Your task to perform on an android device: open a new tab in the chrome app Image 0: 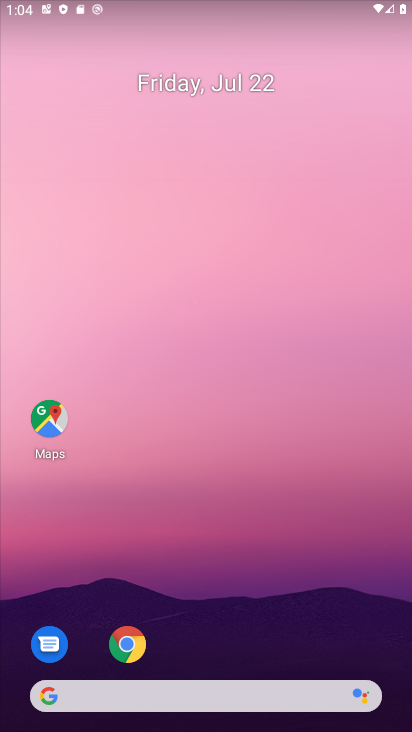
Step 0: click (129, 637)
Your task to perform on an android device: open a new tab in the chrome app Image 1: 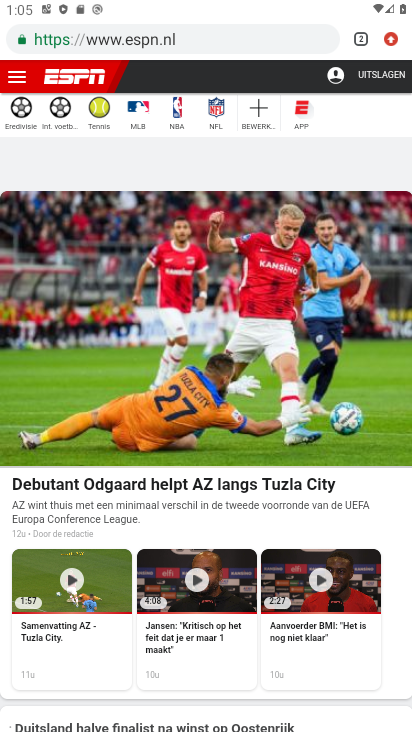
Step 1: click (362, 38)
Your task to perform on an android device: open a new tab in the chrome app Image 2: 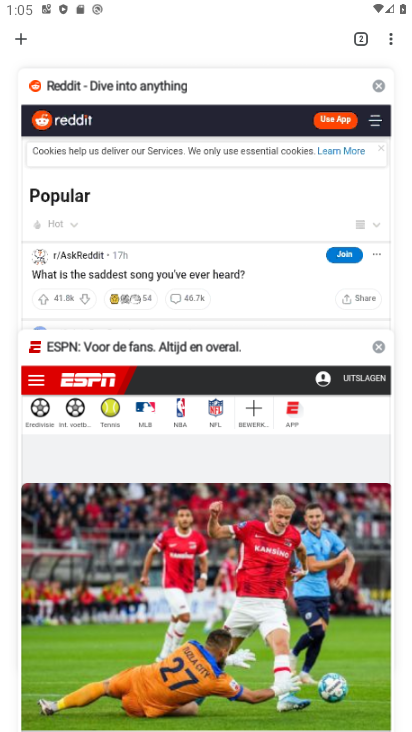
Step 2: click (20, 38)
Your task to perform on an android device: open a new tab in the chrome app Image 3: 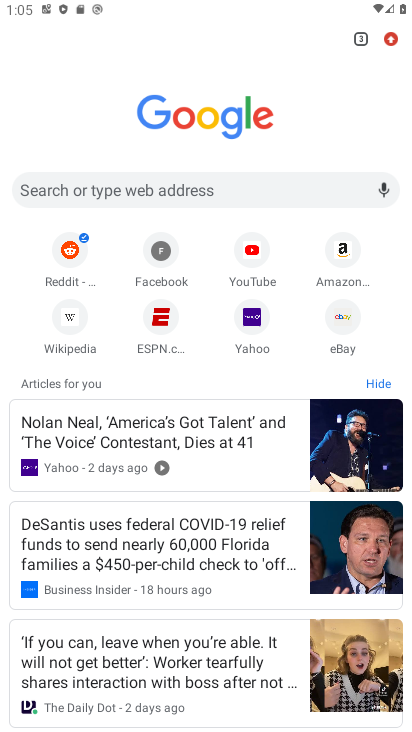
Step 3: task complete